Your task to perform on an android device: Show me popular videos on Youtube Image 0: 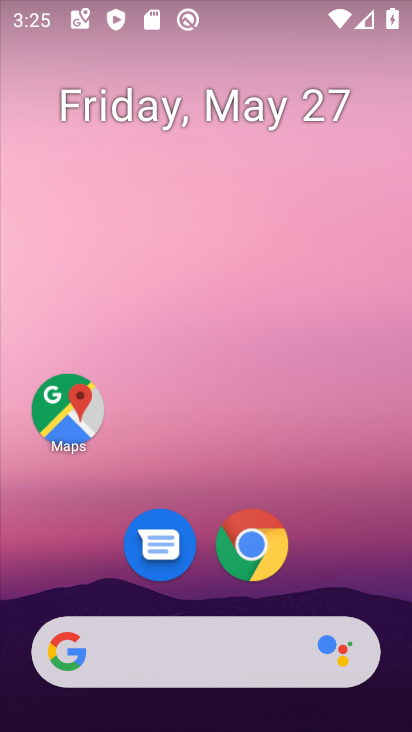
Step 0: press home button
Your task to perform on an android device: Show me popular videos on Youtube Image 1: 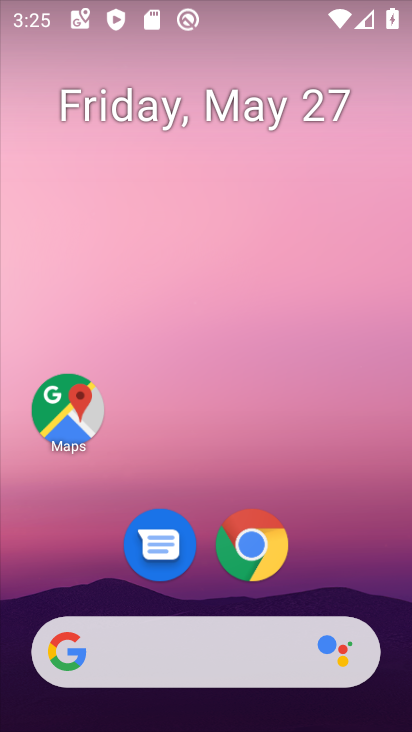
Step 1: drag from (193, 654) to (301, 201)
Your task to perform on an android device: Show me popular videos on Youtube Image 2: 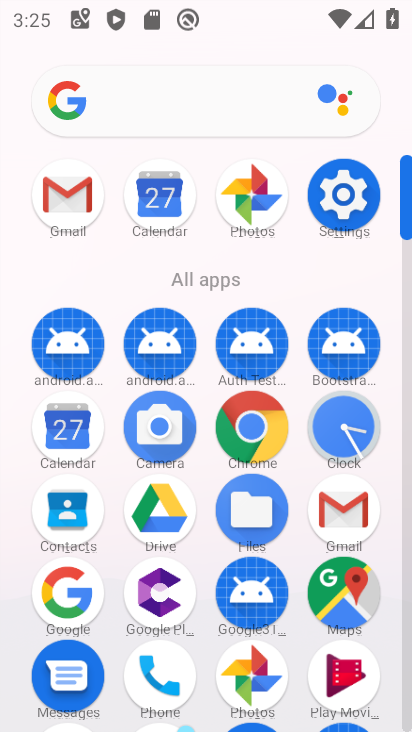
Step 2: drag from (301, 600) to (383, 144)
Your task to perform on an android device: Show me popular videos on Youtube Image 3: 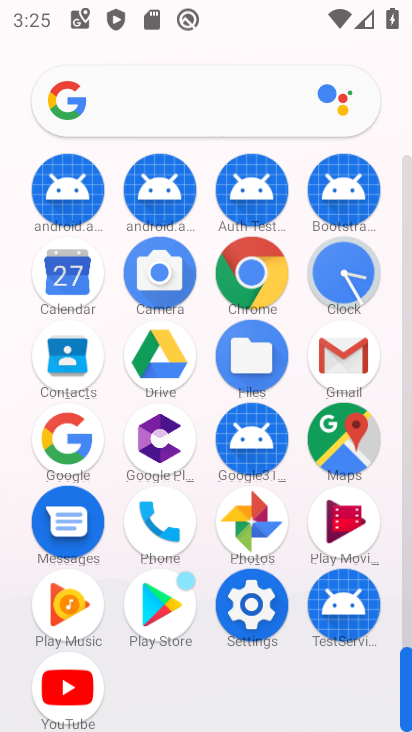
Step 3: click (72, 688)
Your task to perform on an android device: Show me popular videos on Youtube Image 4: 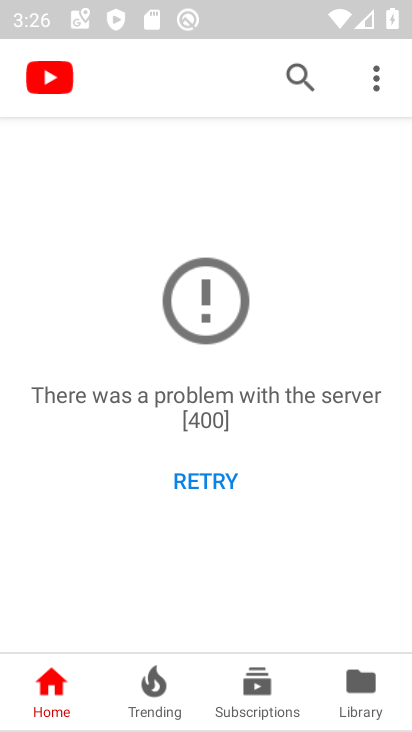
Step 4: click (206, 470)
Your task to perform on an android device: Show me popular videos on Youtube Image 5: 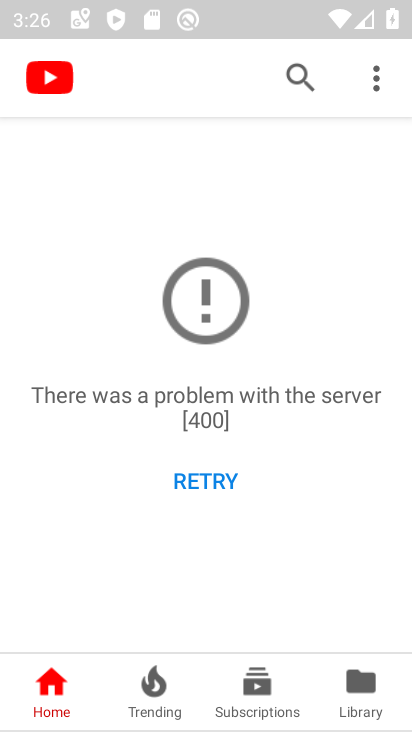
Step 5: task complete